Your task to perform on an android device: Open Wikipedia Image 0: 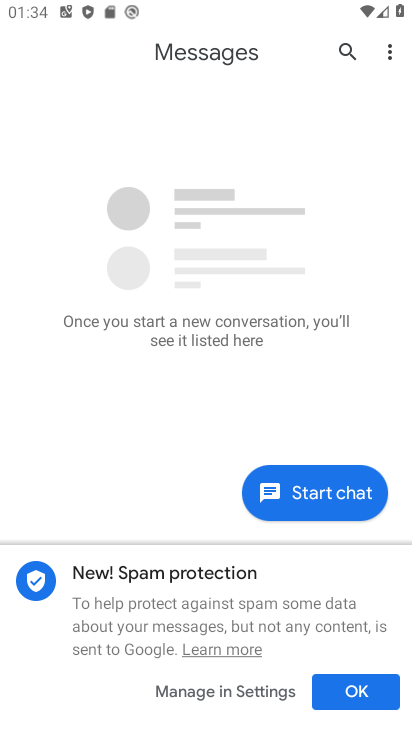
Step 0: press back button
Your task to perform on an android device: Open Wikipedia Image 1: 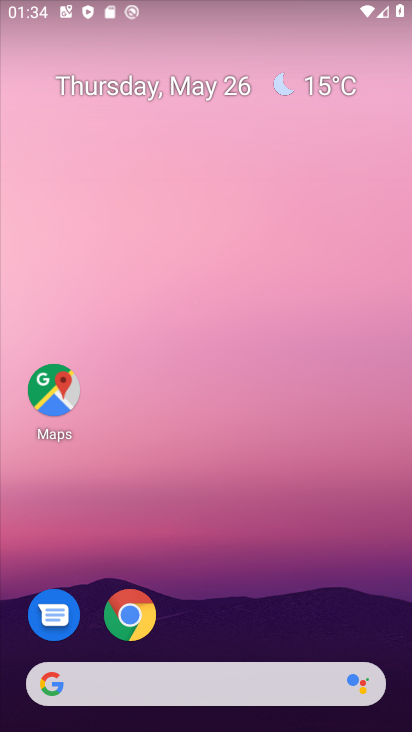
Step 1: click (129, 608)
Your task to perform on an android device: Open Wikipedia Image 2: 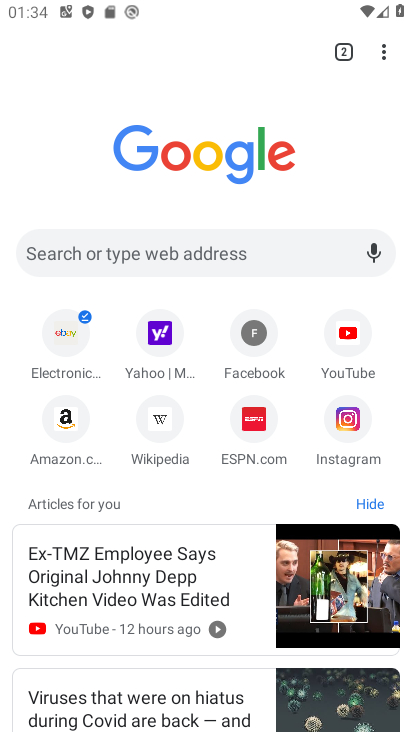
Step 2: click (161, 422)
Your task to perform on an android device: Open Wikipedia Image 3: 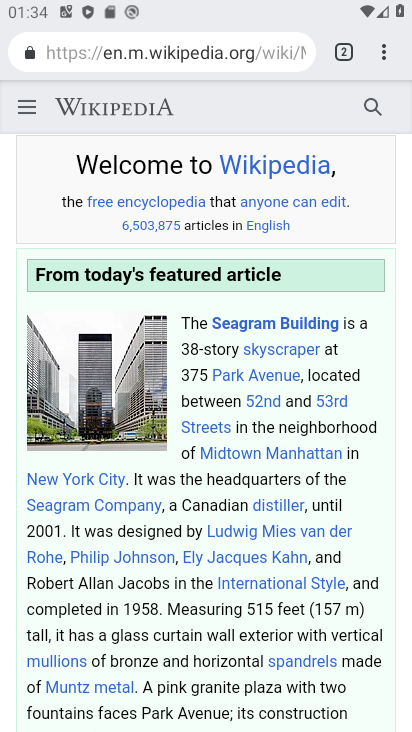
Step 3: task complete